Your task to perform on an android device: Go to Google maps Image 0: 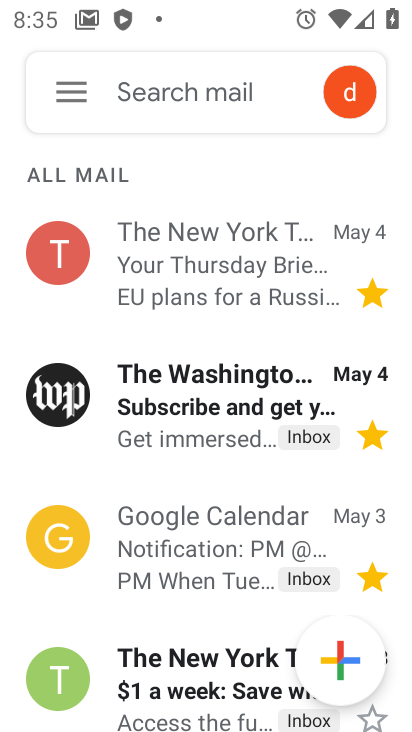
Step 0: press home button
Your task to perform on an android device: Go to Google maps Image 1: 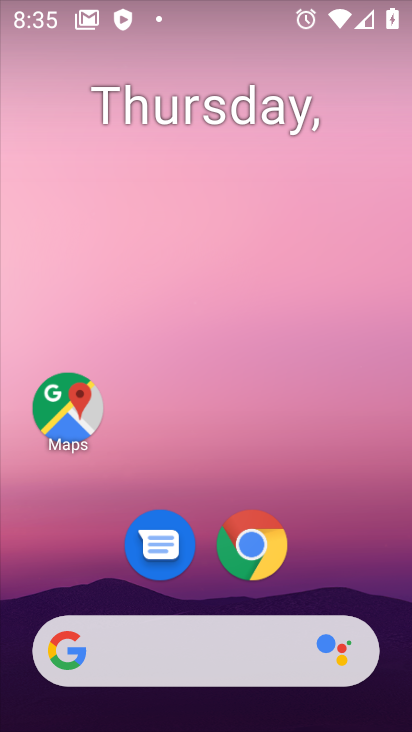
Step 1: click (82, 410)
Your task to perform on an android device: Go to Google maps Image 2: 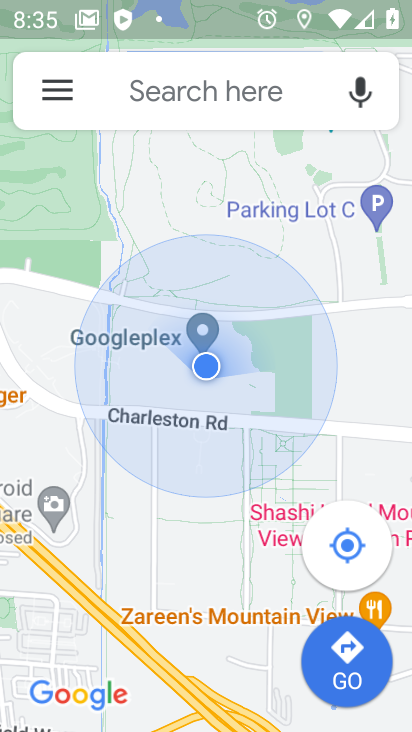
Step 2: task complete